Your task to perform on an android device: Go to privacy settings Image 0: 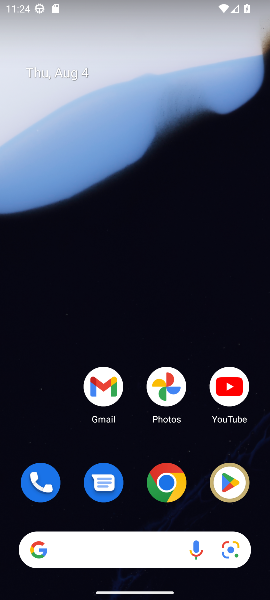
Step 0: drag from (142, 449) to (141, 127)
Your task to perform on an android device: Go to privacy settings Image 1: 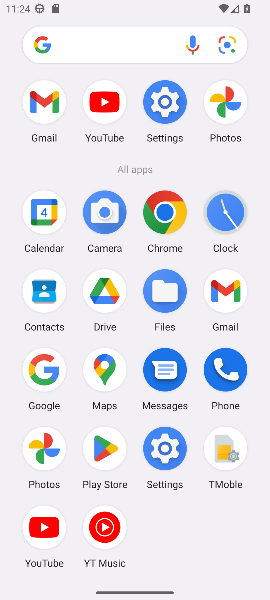
Step 1: click (160, 117)
Your task to perform on an android device: Go to privacy settings Image 2: 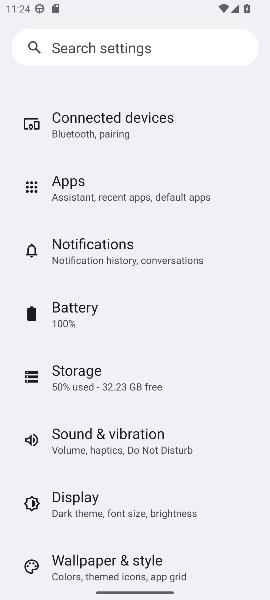
Step 2: drag from (133, 476) to (136, 223)
Your task to perform on an android device: Go to privacy settings Image 3: 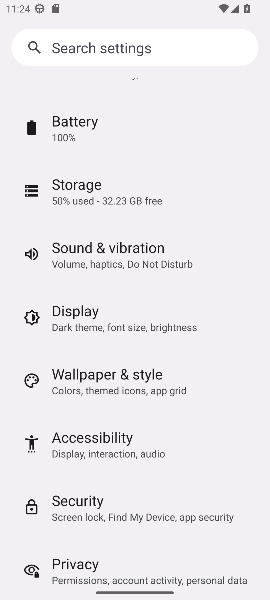
Step 3: drag from (99, 501) to (124, 219)
Your task to perform on an android device: Go to privacy settings Image 4: 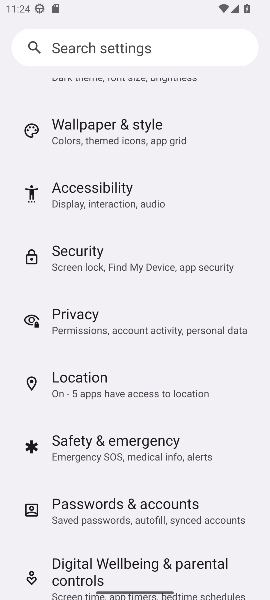
Step 4: click (116, 304)
Your task to perform on an android device: Go to privacy settings Image 5: 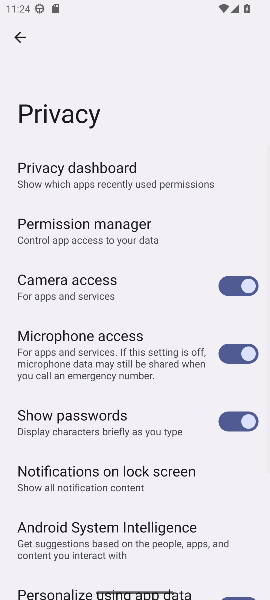
Step 5: task complete